Your task to perform on an android device: Go to network settings Image 0: 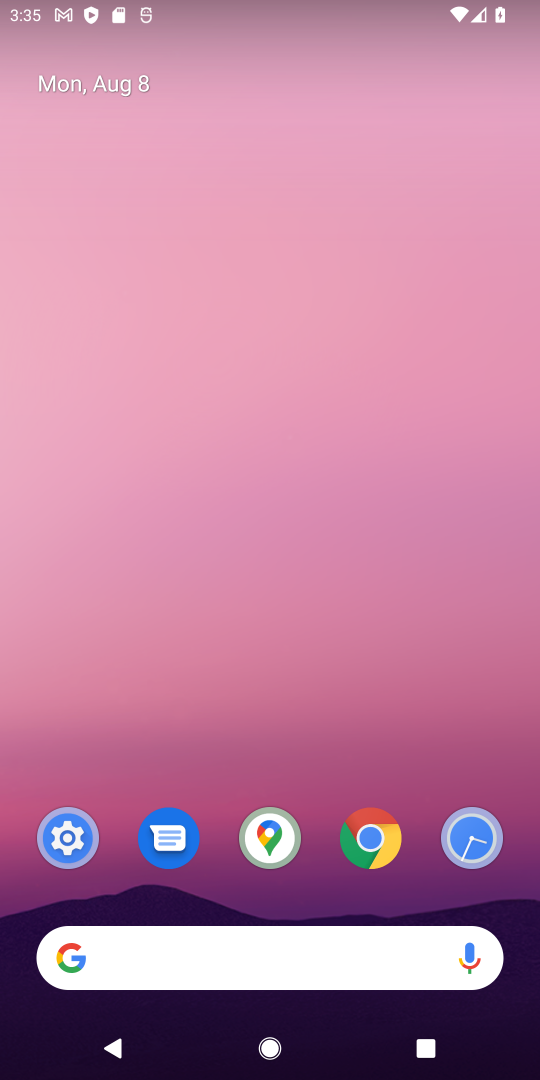
Step 0: drag from (253, 966) to (374, 443)
Your task to perform on an android device: Go to network settings Image 1: 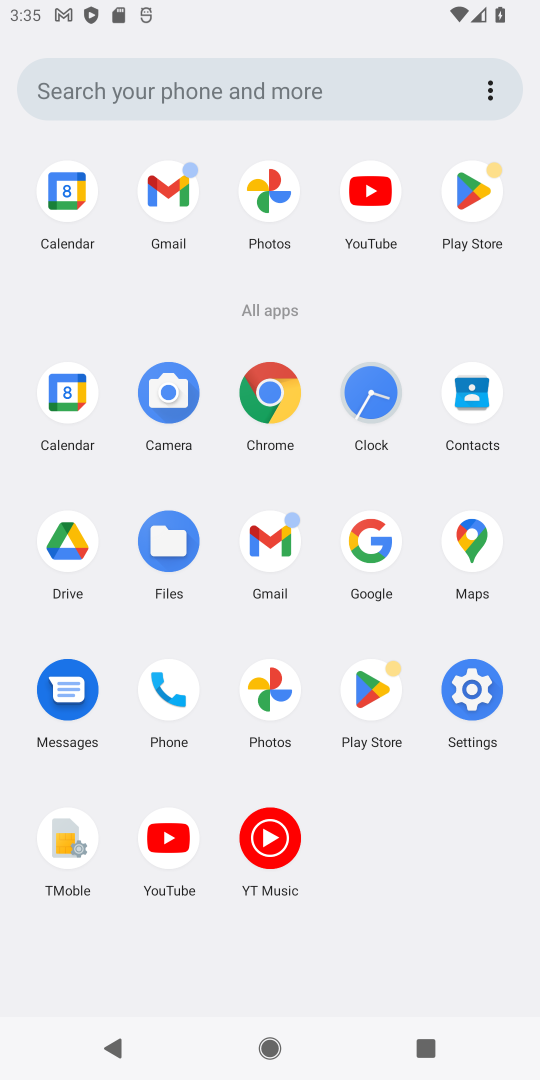
Step 1: click (472, 685)
Your task to perform on an android device: Go to network settings Image 2: 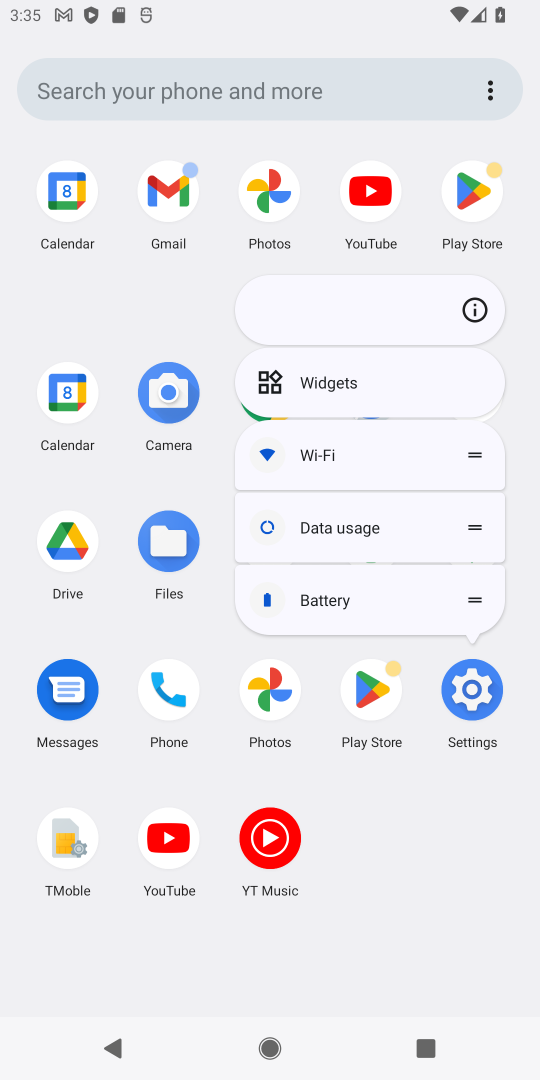
Step 2: click (477, 690)
Your task to perform on an android device: Go to network settings Image 3: 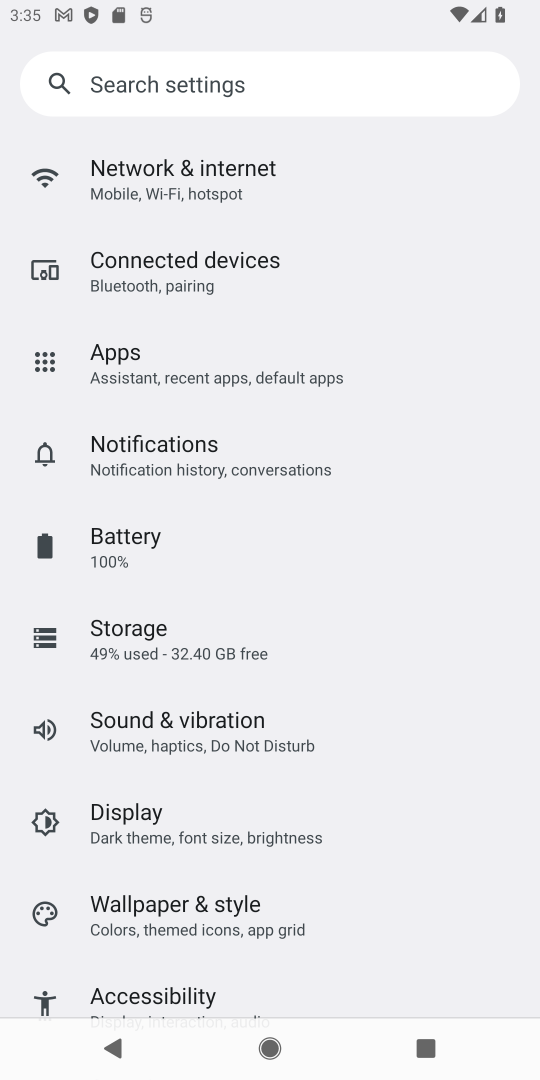
Step 3: click (224, 178)
Your task to perform on an android device: Go to network settings Image 4: 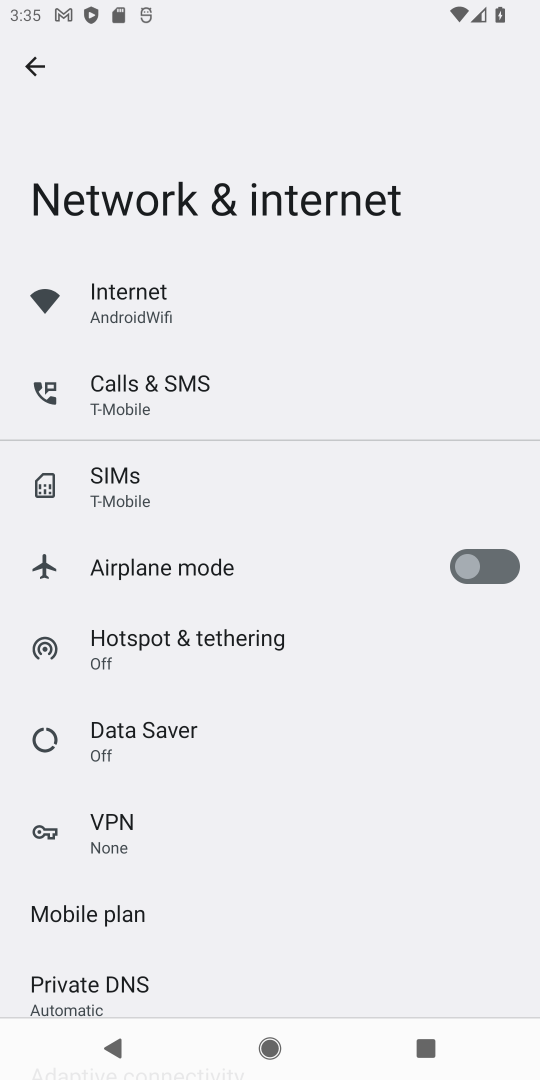
Step 4: task complete